Your task to perform on an android device: Go to wifi settings Image 0: 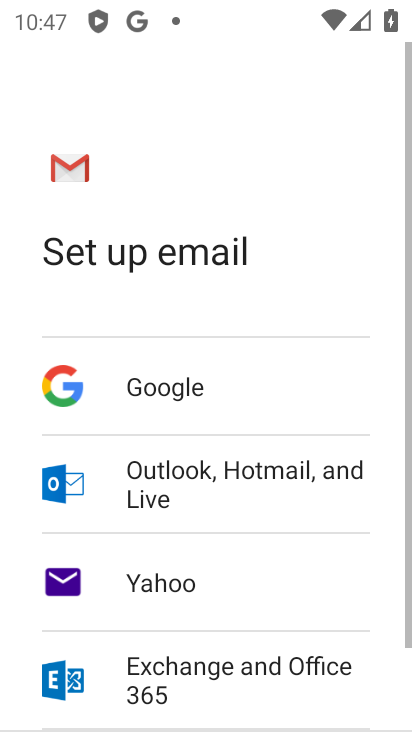
Step 0: press home button
Your task to perform on an android device: Go to wifi settings Image 1: 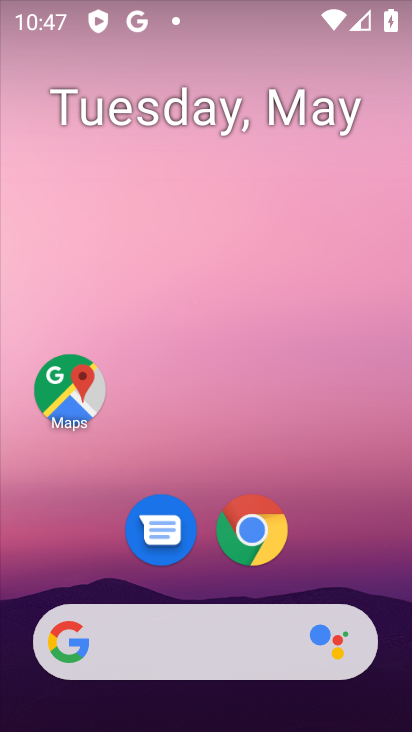
Step 1: drag from (373, 538) to (350, 146)
Your task to perform on an android device: Go to wifi settings Image 2: 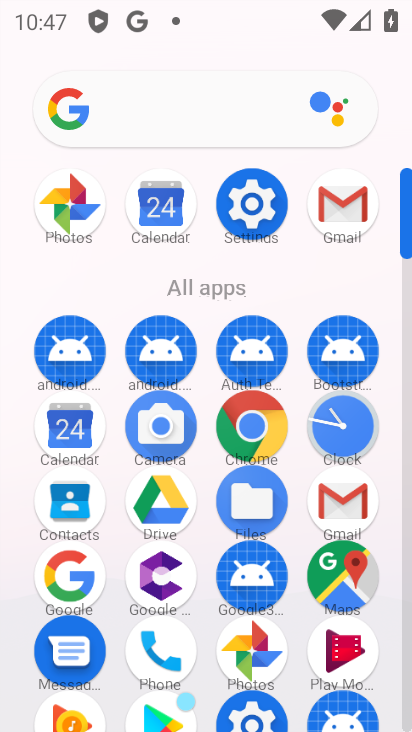
Step 2: click (254, 213)
Your task to perform on an android device: Go to wifi settings Image 3: 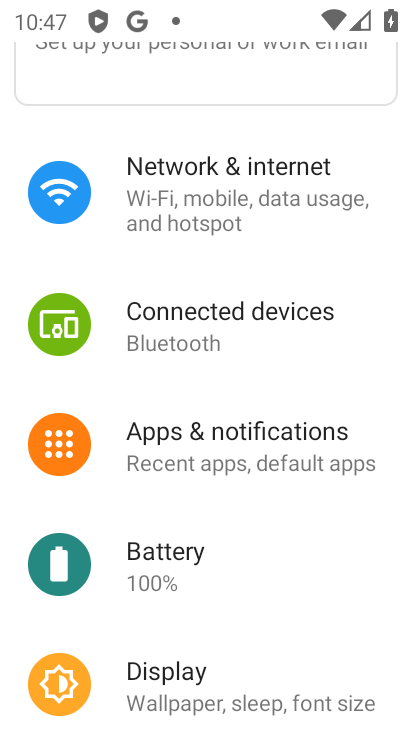
Step 3: click (265, 204)
Your task to perform on an android device: Go to wifi settings Image 4: 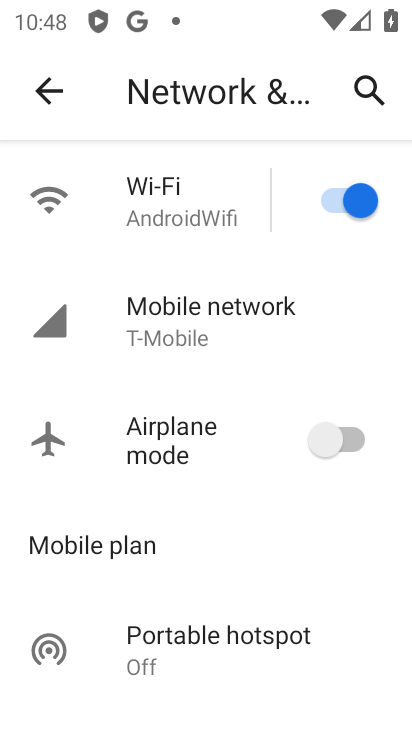
Step 4: click (196, 194)
Your task to perform on an android device: Go to wifi settings Image 5: 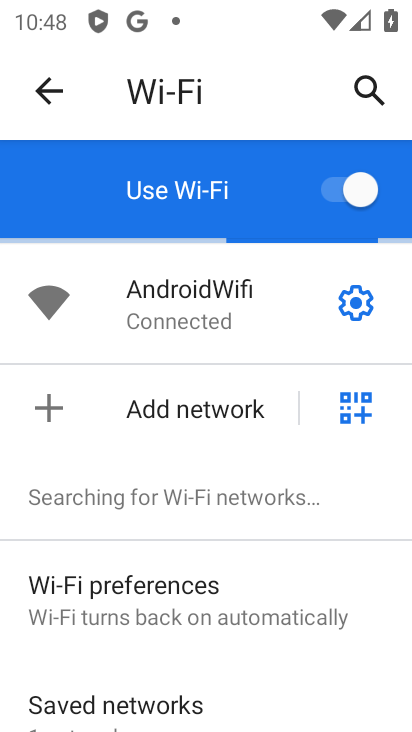
Step 5: click (361, 306)
Your task to perform on an android device: Go to wifi settings Image 6: 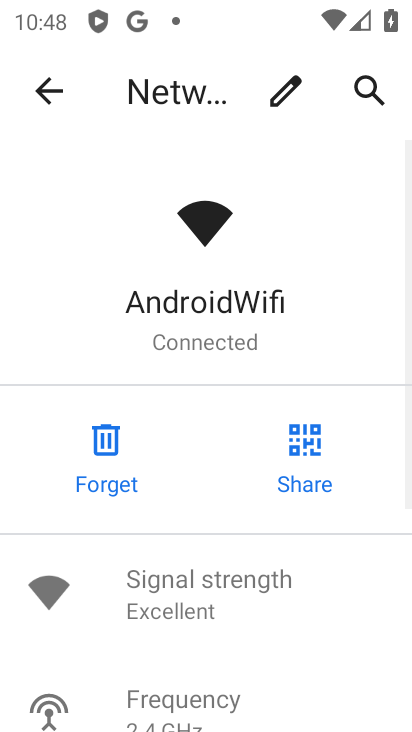
Step 6: task complete